Your task to perform on an android device: all mails in gmail Image 0: 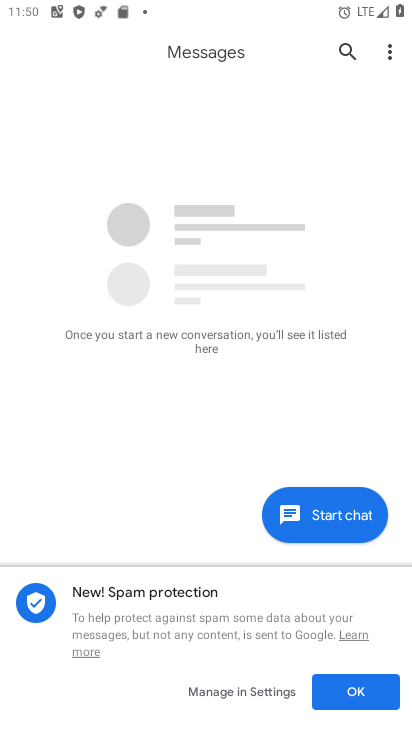
Step 0: press home button
Your task to perform on an android device: all mails in gmail Image 1: 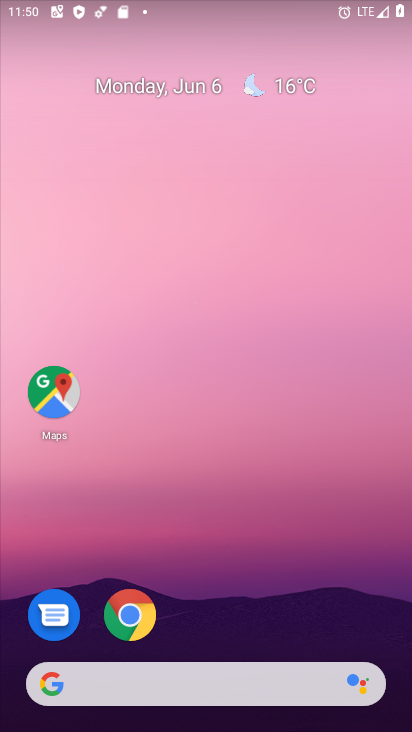
Step 1: drag from (213, 630) to (240, 47)
Your task to perform on an android device: all mails in gmail Image 2: 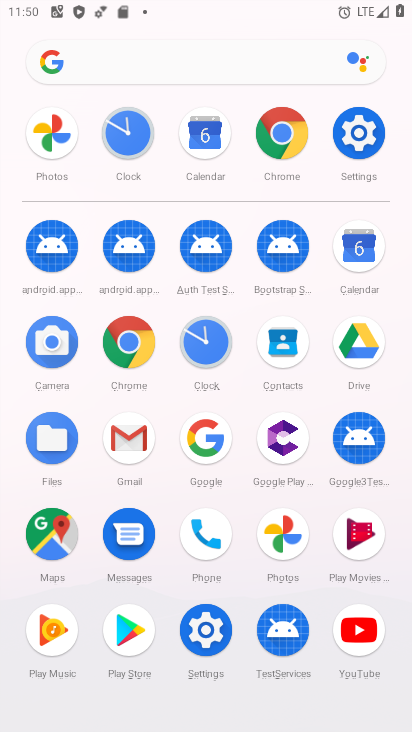
Step 2: click (133, 432)
Your task to perform on an android device: all mails in gmail Image 3: 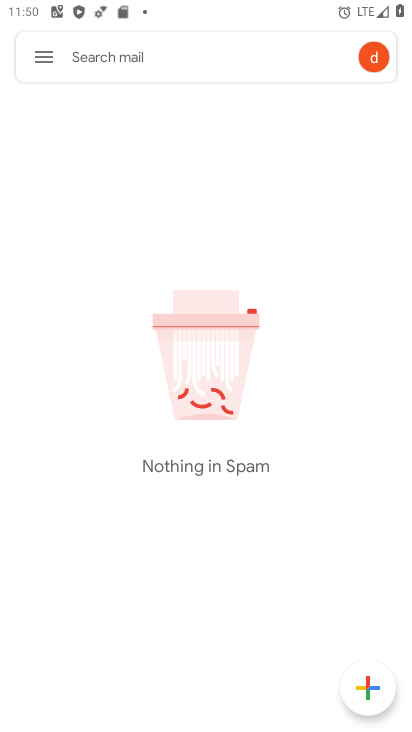
Step 3: click (50, 55)
Your task to perform on an android device: all mails in gmail Image 4: 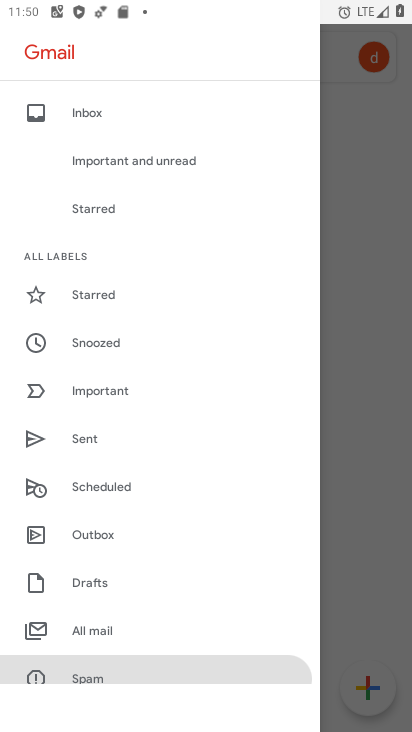
Step 4: click (111, 629)
Your task to perform on an android device: all mails in gmail Image 5: 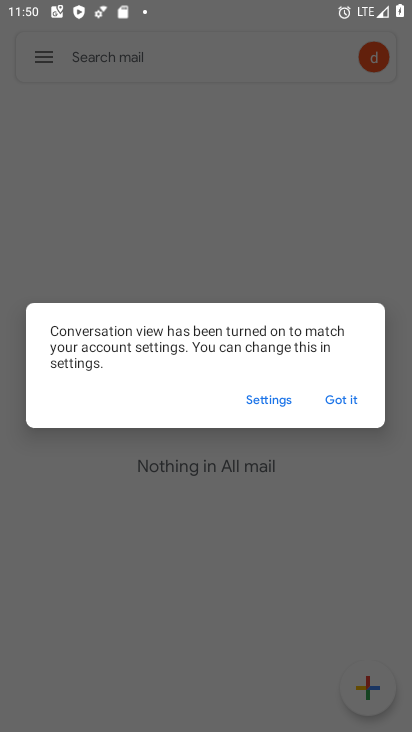
Step 5: click (330, 398)
Your task to perform on an android device: all mails in gmail Image 6: 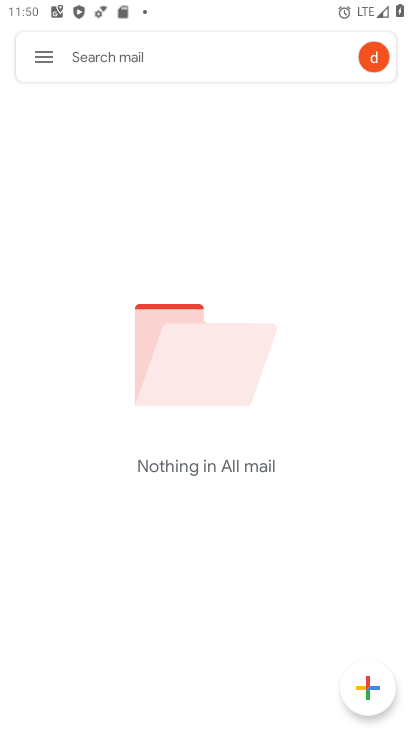
Step 6: task complete